Your task to perform on an android device: Open network settings Image 0: 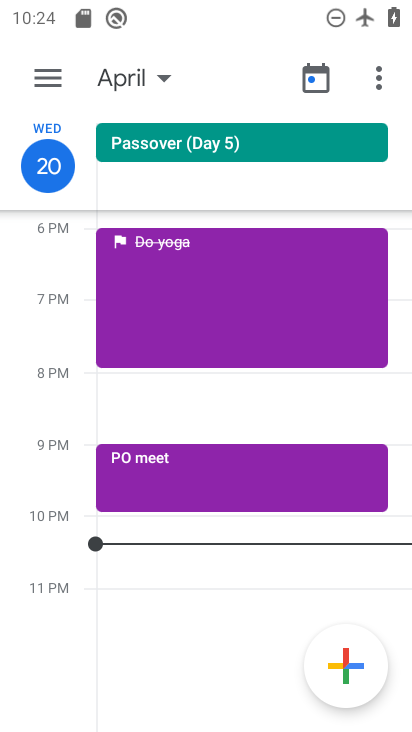
Step 0: press home button
Your task to perform on an android device: Open network settings Image 1: 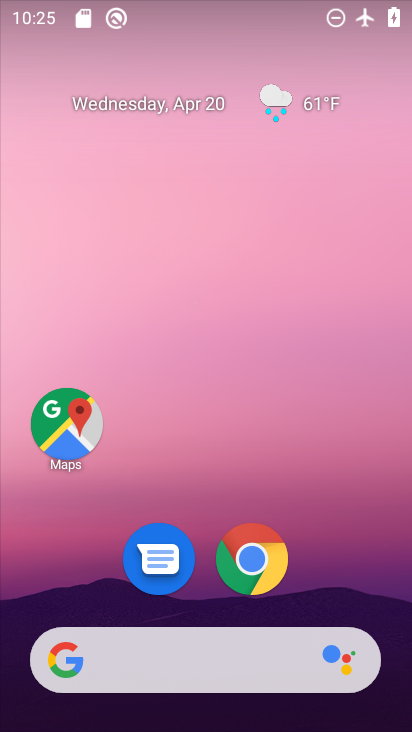
Step 1: drag from (350, 595) to (283, 276)
Your task to perform on an android device: Open network settings Image 2: 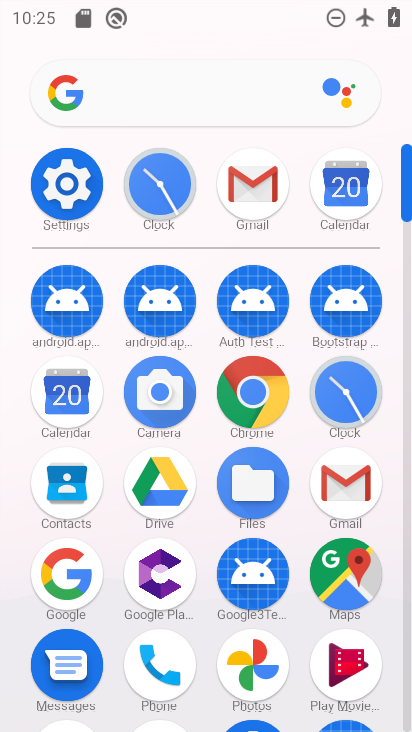
Step 2: click (408, 688)
Your task to perform on an android device: Open network settings Image 3: 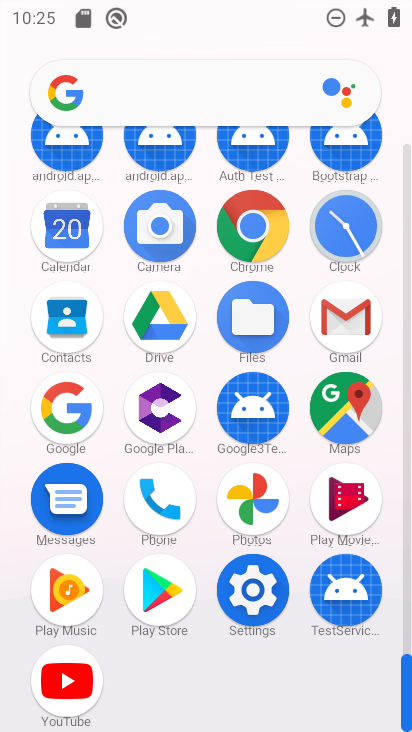
Step 3: click (250, 586)
Your task to perform on an android device: Open network settings Image 4: 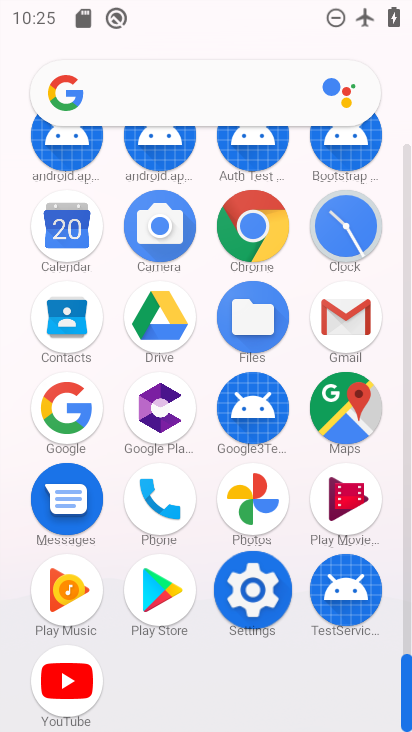
Step 4: click (250, 586)
Your task to perform on an android device: Open network settings Image 5: 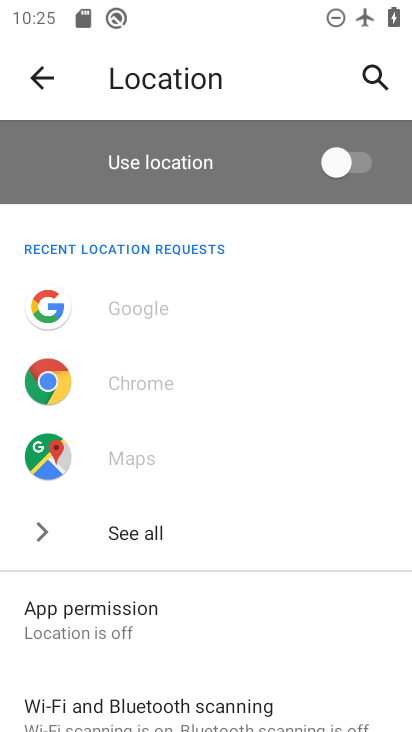
Step 5: press back button
Your task to perform on an android device: Open network settings Image 6: 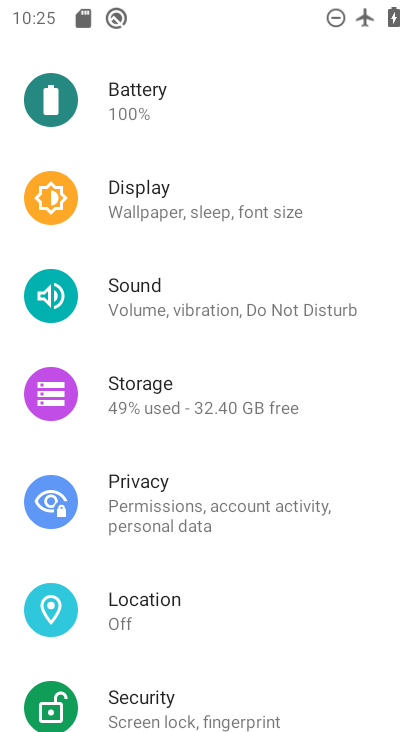
Step 6: drag from (339, 210) to (329, 501)
Your task to perform on an android device: Open network settings Image 7: 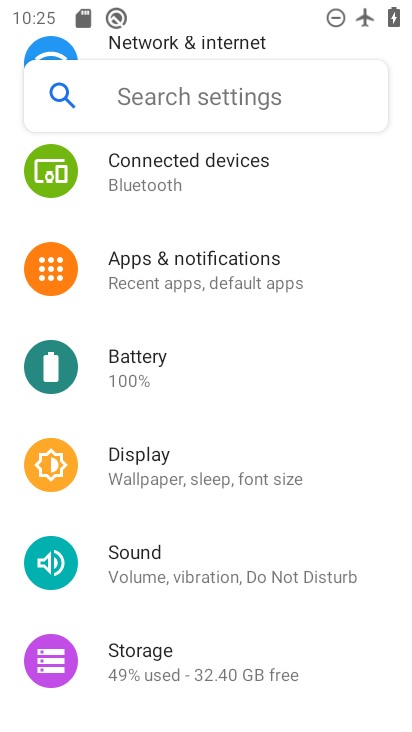
Step 7: drag from (273, 242) to (261, 464)
Your task to perform on an android device: Open network settings Image 8: 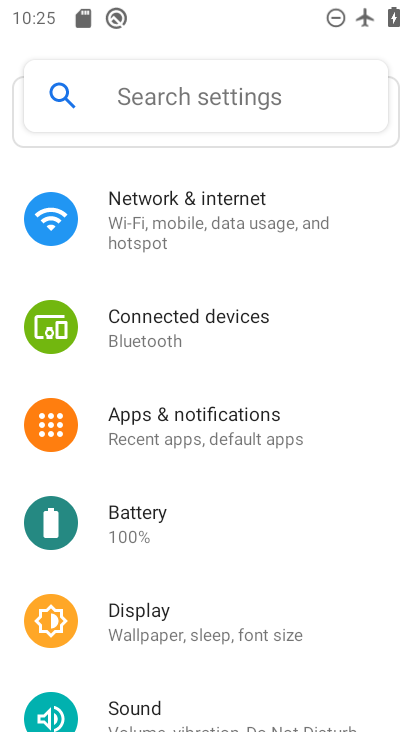
Step 8: click (157, 208)
Your task to perform on an android device: Open network settings Image 9: 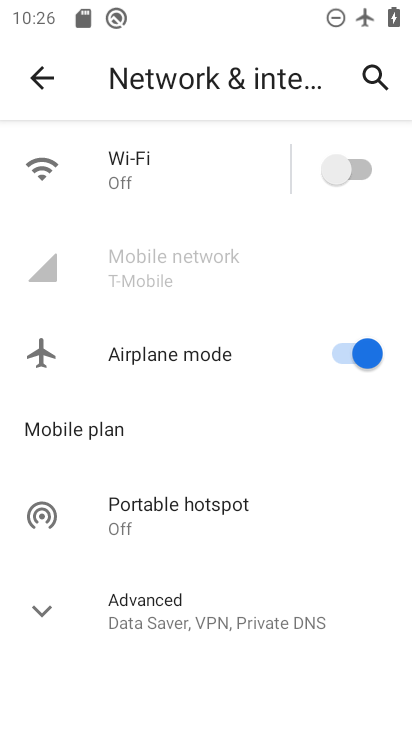
Step 9: click (41, 611)
Your task to perform on an android device: Open network settings Image 10: 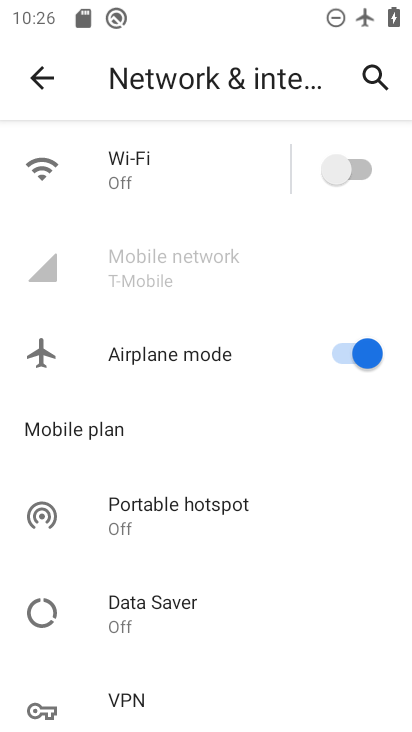
Step 10: task complete